Your task to perform on an android device: check out phone information Image 0: 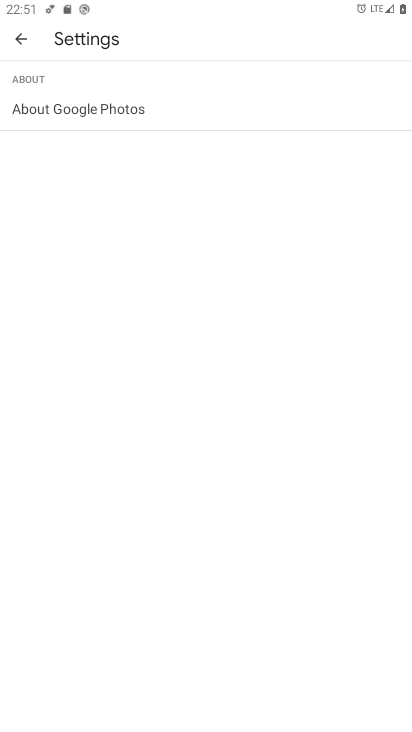
Step 0: press home button
Your task to perform on an android device: check out phone information Image 1: 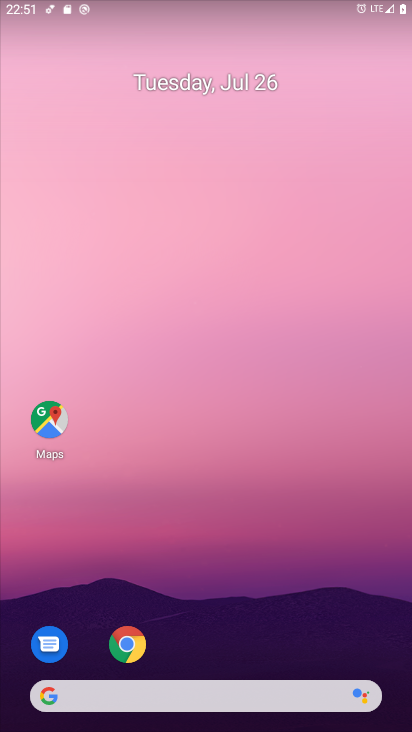
Step 1: drag from (233, 663) to (237, 7)
Your task to perform on an android device: check out phone information Image 2: 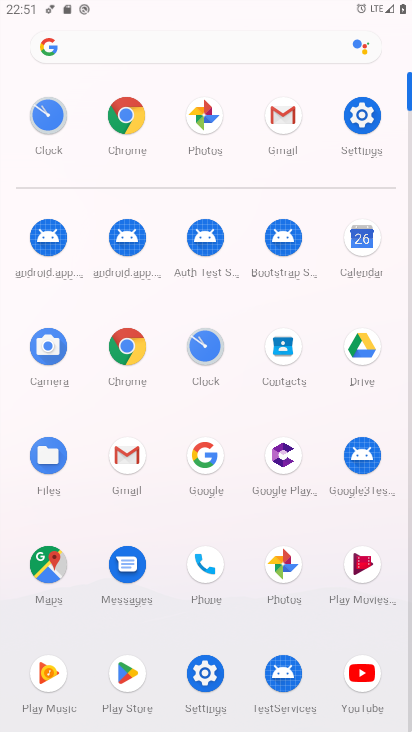
Step 2: click (206, 673)
Your task to perform on an android device: check out phone information Image 3: 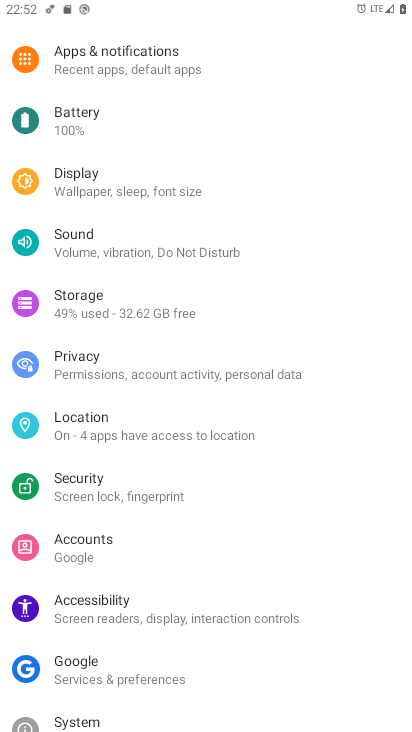
Step 3: drag from (187, 221) to (197, 10)
Your task to perform on an android device: check out phone information Image 4: 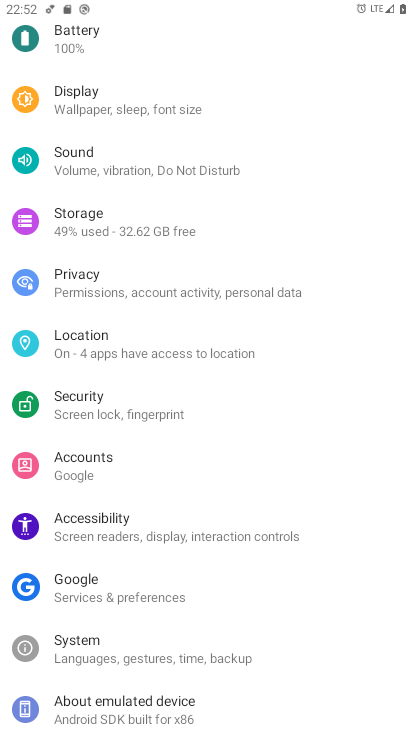
Step 4: click (115, 709)
Your task to perform on an android device: check out phone information Image 5: 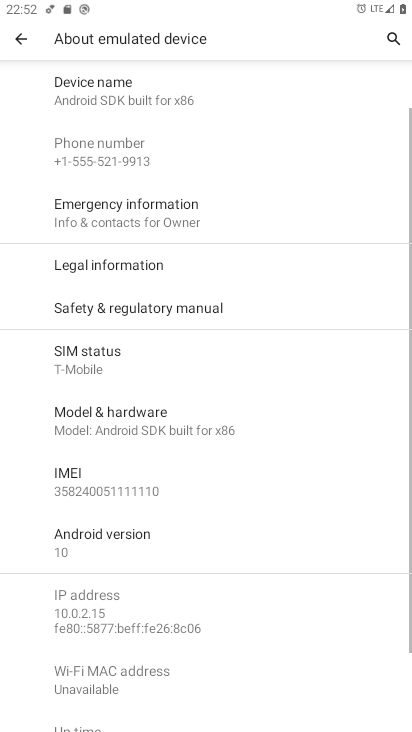
Step 5: task complete